Your task to perform on an android device: Open calendar and show me the second week of next month Image 0: 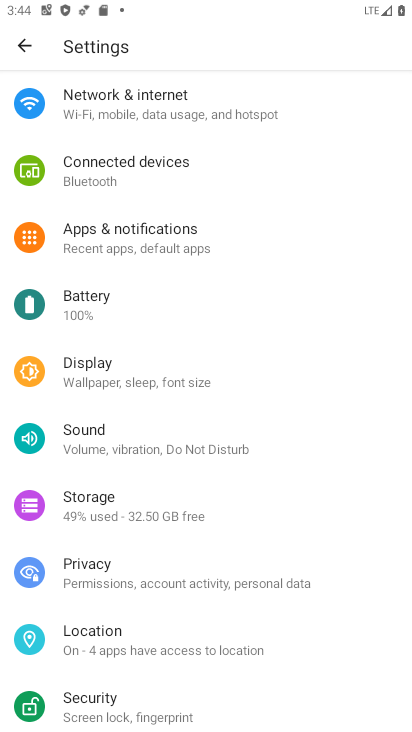
Step 0: press home button
Your task to perform on an android device: Open calendar and show me the second week of next month Image 1: 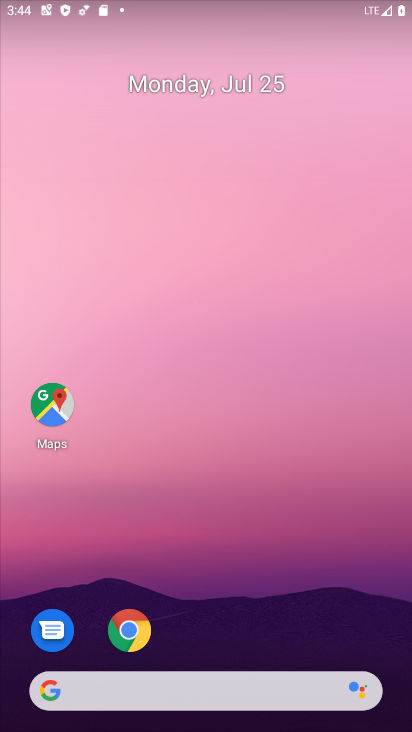
Step 1: drag from (194, 608) to (218, 29)
Your task to perform on an android device: Open calendar and show me the second week of next month Image 2: 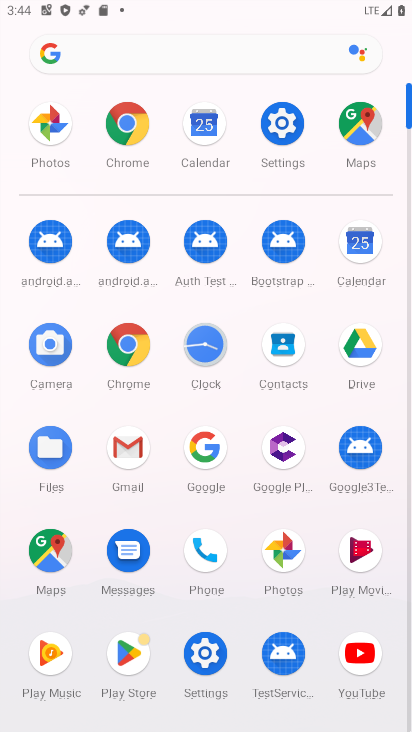
Step 2: click (360, 245)
Your task to perform on an android device: Open calendar and show me the second week of next month Image 3: 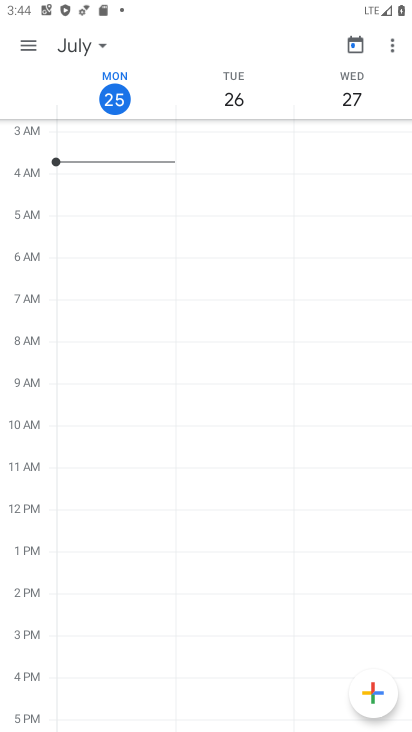
Step 3: click (33, 43)
Your task to perform on an android device: Open calendar and show me the second week of next month Image 4: 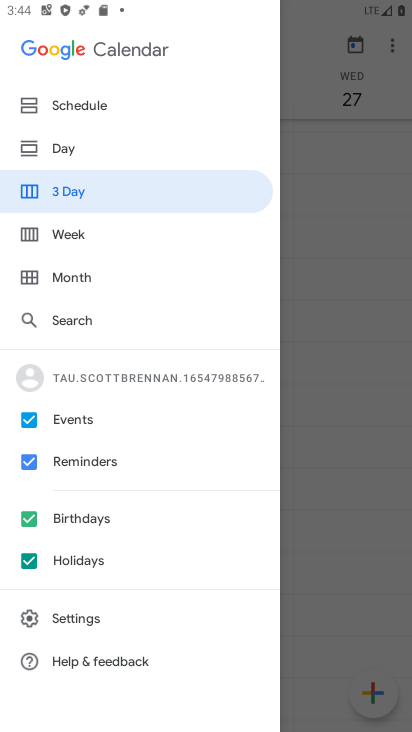
Step 4: click (88, 242)
Your task to perform on an android device: Open calendar and show me the second week of next month Image 5: 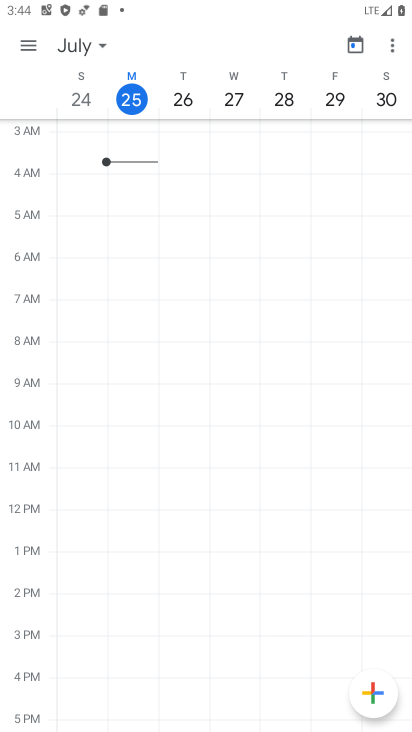
Step 5: task complete